Your task to perform on an android device: What is the speed of a plane? Image 0: 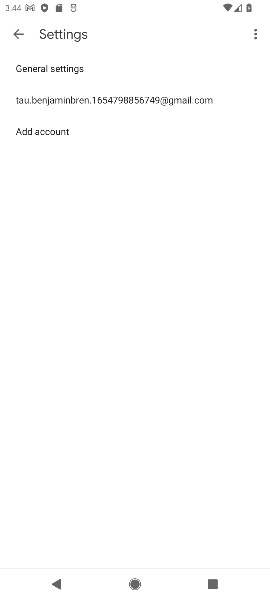
Step 0: press home button
Your task to perform on an android device: What is the speed of a plane? Image 1: 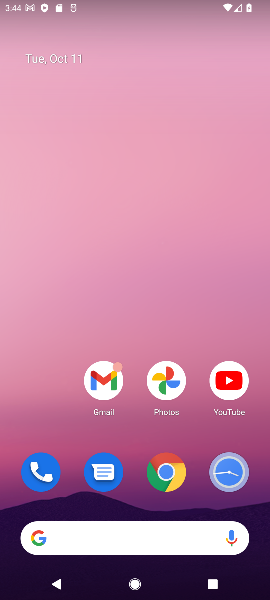
Step 1: drag from (131, 397) to (120, 35)
Your task to perform on an android device: What is the speed of a plane? Image 2: 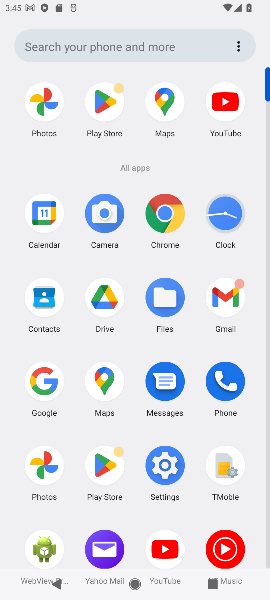
Step 2: click (43, 383)
Your task to perform on an android device: What is the speed of a plane? Image 3: 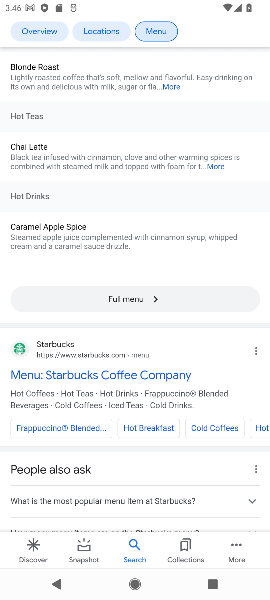
Step 3: drag from (153, 155) to (89, 563)
Your task to perform on an android device: What is the speed of a plane? Image 4: 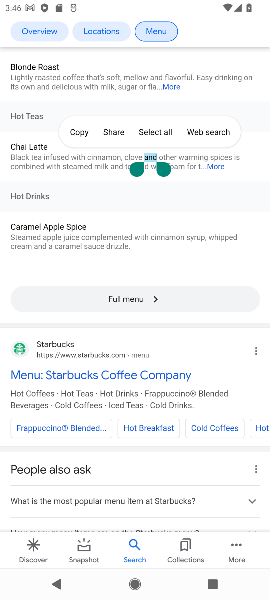
Step 4: drag from (166, 260) to (166, 558)
Your task to perform on an android device: What is the speed of a plane? Image 5: 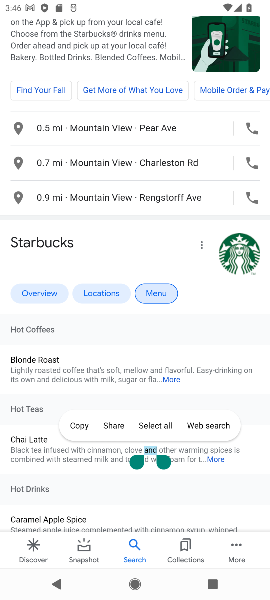
Step 5: drag from (149, 217) to (156, 571)
Your task to perform on an android device: What is the speed of a plane? Image 6: 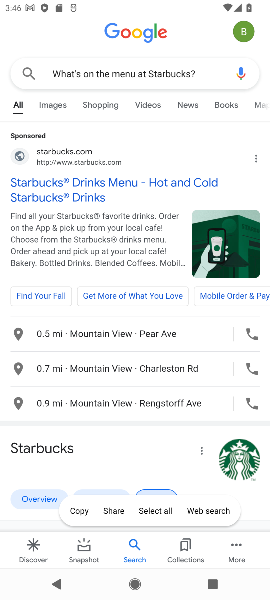
Step 6: click (201, 66)
Your task to perform on an android device: What is the speed of a plane? Image 7: 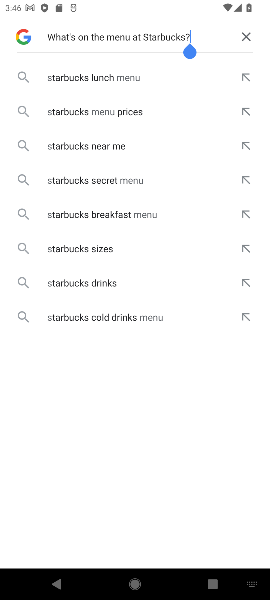
Step 7: click (250, 35)
Your task to perform on an android device: What is the speed of a plane? Image 8: 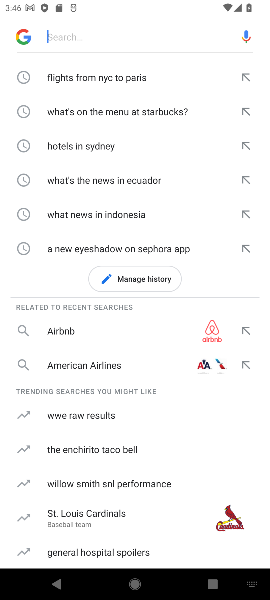
Step 8: type "What is the speed of a plane?"
Your task to perform on an android device: What is the speed of a plane? Image 9: 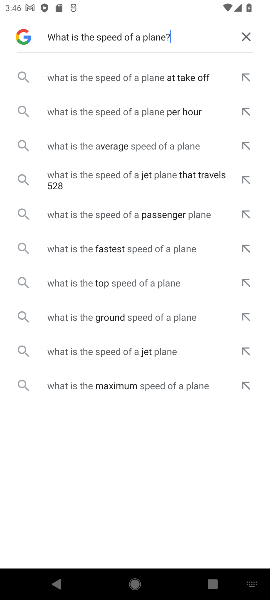
Step 9: click (137, 283)
Your task to perform on an android device: What is the speed of a plane? Image 10: 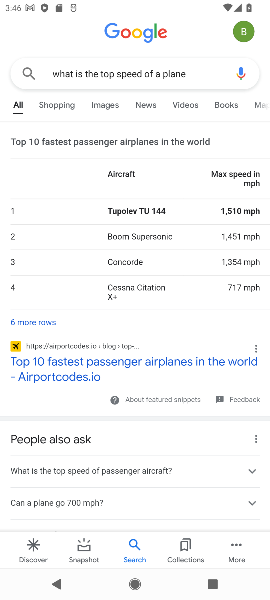
Step 10: task complete